Your task to perform on an android device: Search for a new mascara Image 0: 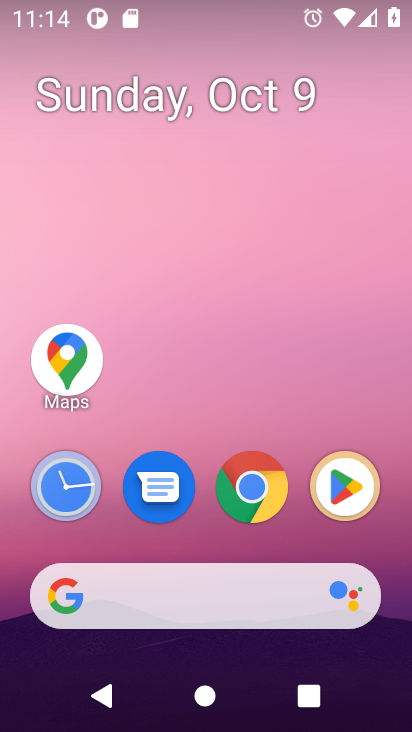
Step 0: click (254, 55)
Your task to perform on an android device: Search for a new mascara Image 1: 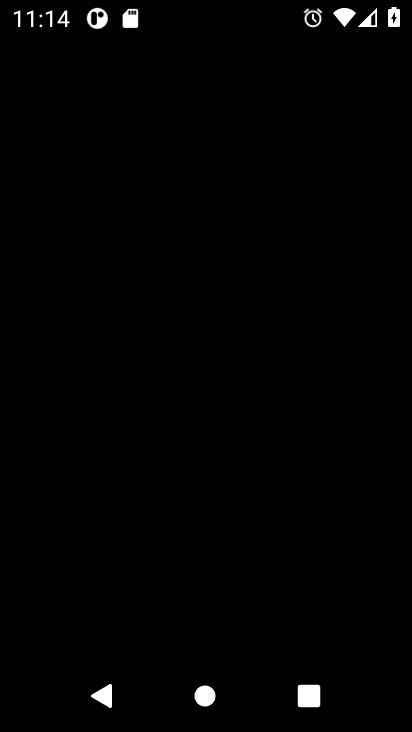
Step 1: press home button
Your task to perform on an android device: Search for a new mascara Image 2: 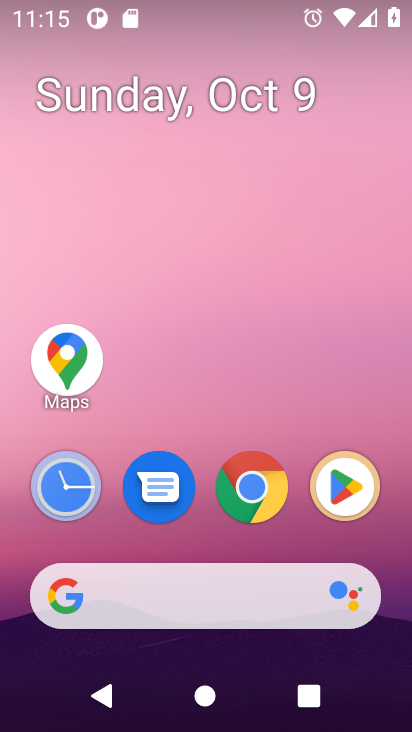
Step 2: drag from (201, 559) to (154, 10)
Your task to perform on an android device: Search for a new mascara Image 3: 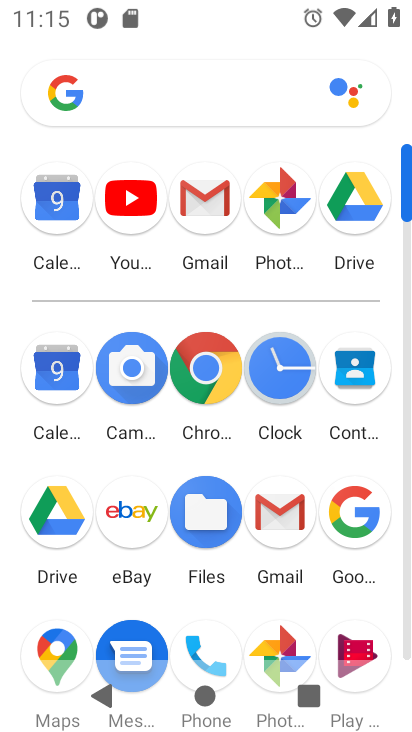
Step 3: click (362, 517)
Your task to perform on an android device: Search for a new mascara Image 4: 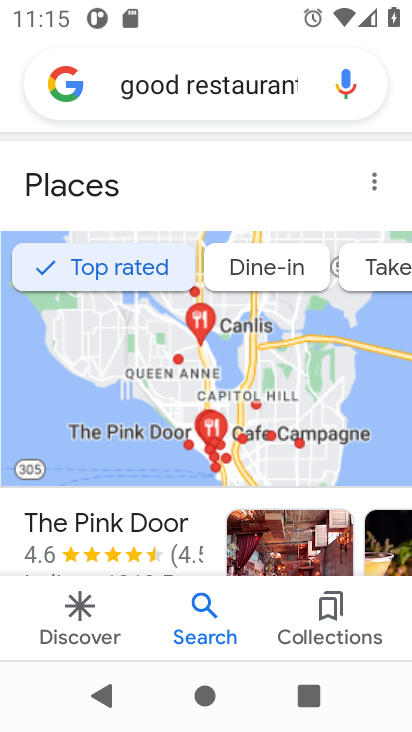
Step 4: click (251, 83)
Your task to perform on an android device: Search for a new mascara Image 5: 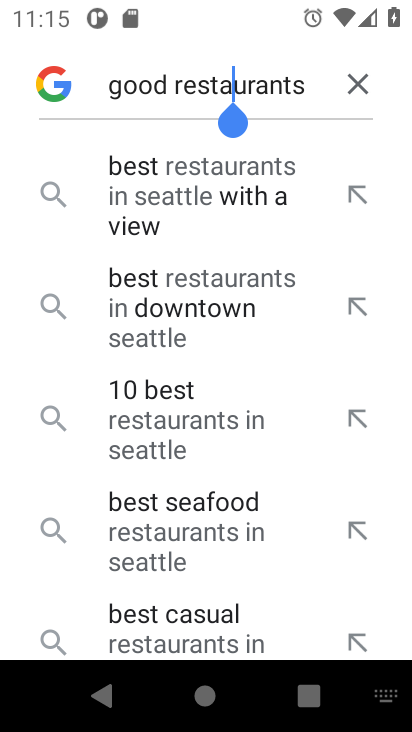
Step 5: click (348, 78)
Your task to perform on an android device: Search for a new mascara Image 6: 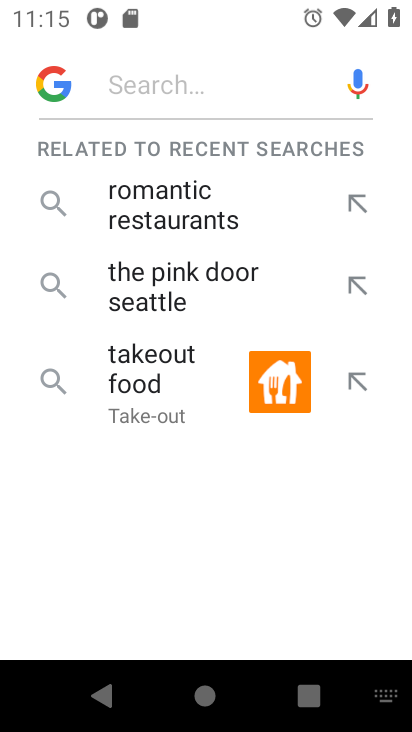
Step 6: type "new mascara"
Your task to perform on an android device: Search for a new mascara Image 7: 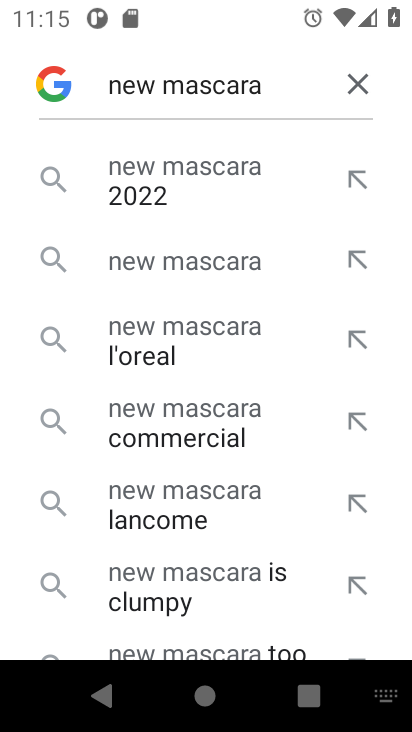
Step 7: type ""
Your task to perform on an android device: Search for a new mascara Image 8: 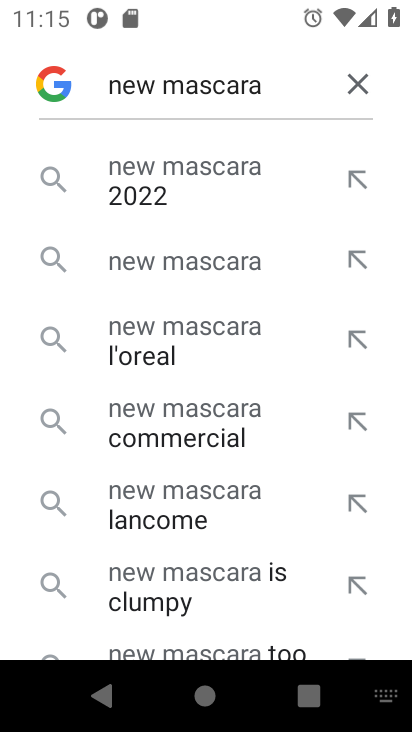
Step 8: click (219, 261)
Your task to perform on an android device: Search for a new mascara Image 9: 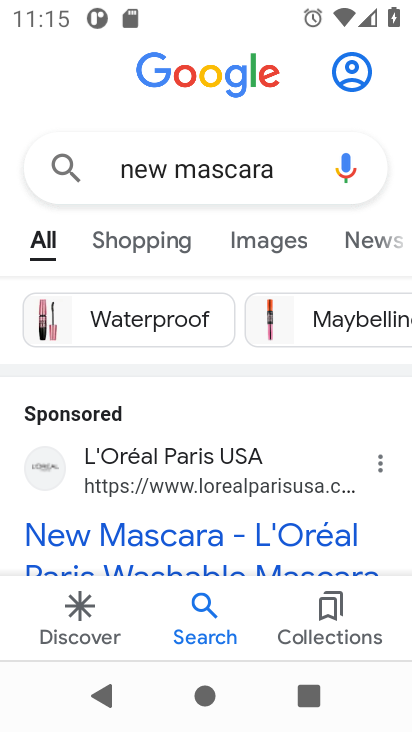
Step 9: drag from (207, 477) to (195, 269)
Your task to perform on an android device: Search for a new mascara Image 10: 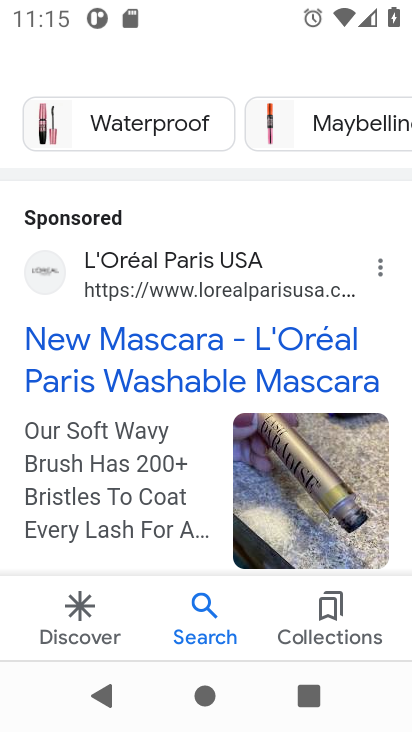
Step 10: drag from (177, 292) to (185, 446)
Your task to perform on an android device: Search for a new mascara Image 11: 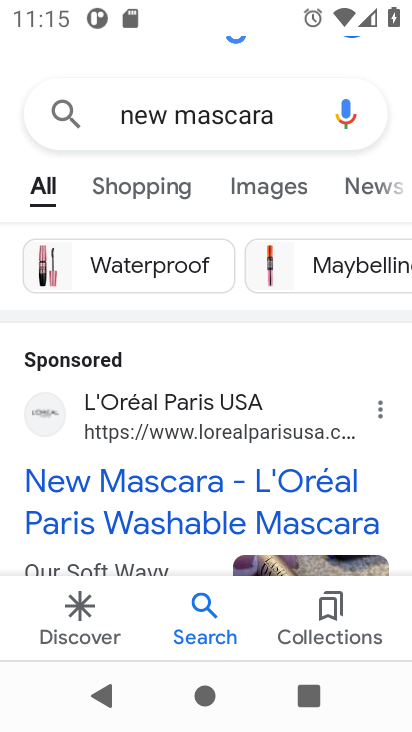
Step 11: drag from (276, 540) to (262, 349)
Your task to perform on an android device: Search for a new mascara Image 12: 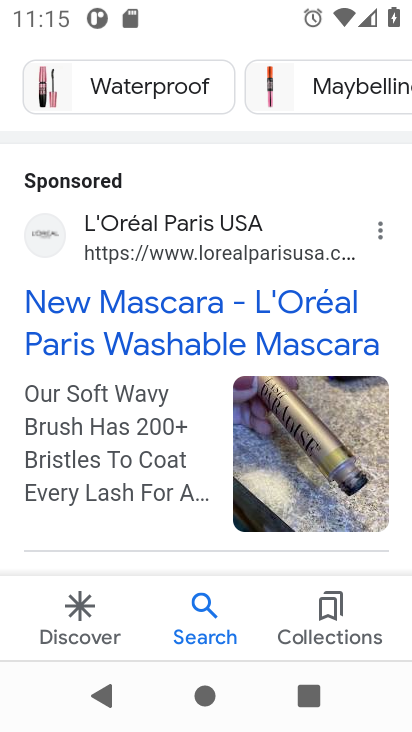
Step 12: click (228, 348)
Your task to perform on an android device: Search for a new mascara Image 13: 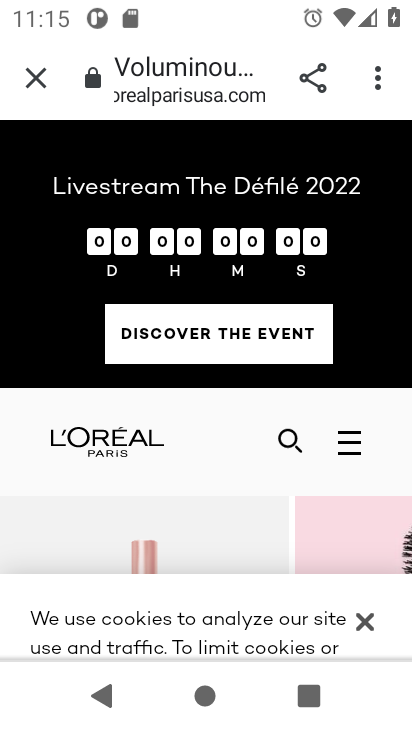
Step 13: task complete